Your task to perform on an android device: open sync settings in chrome Image 0: 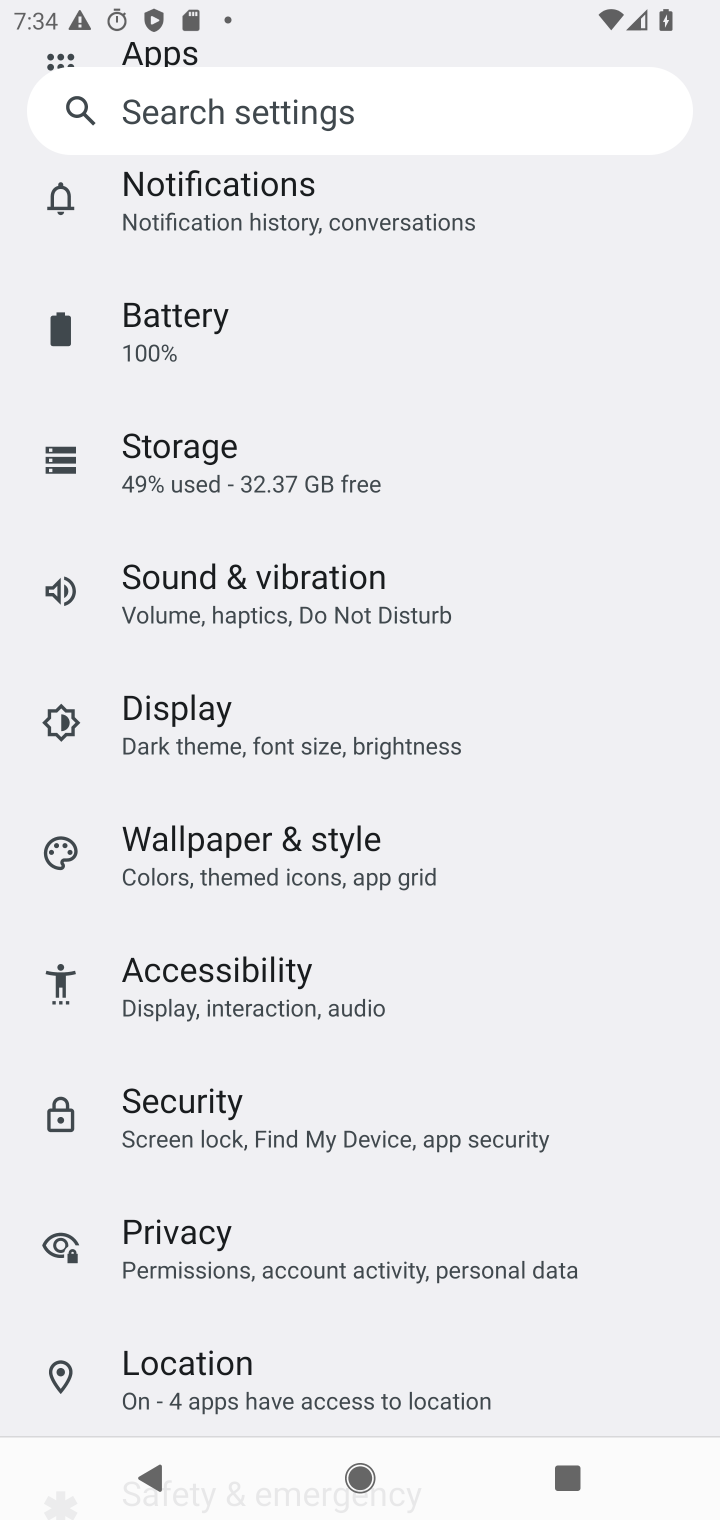
Step 0: drag from (436, 1186) to (548, 307)
Your task to perform on an android device: open sync settings in chrome Image 1: 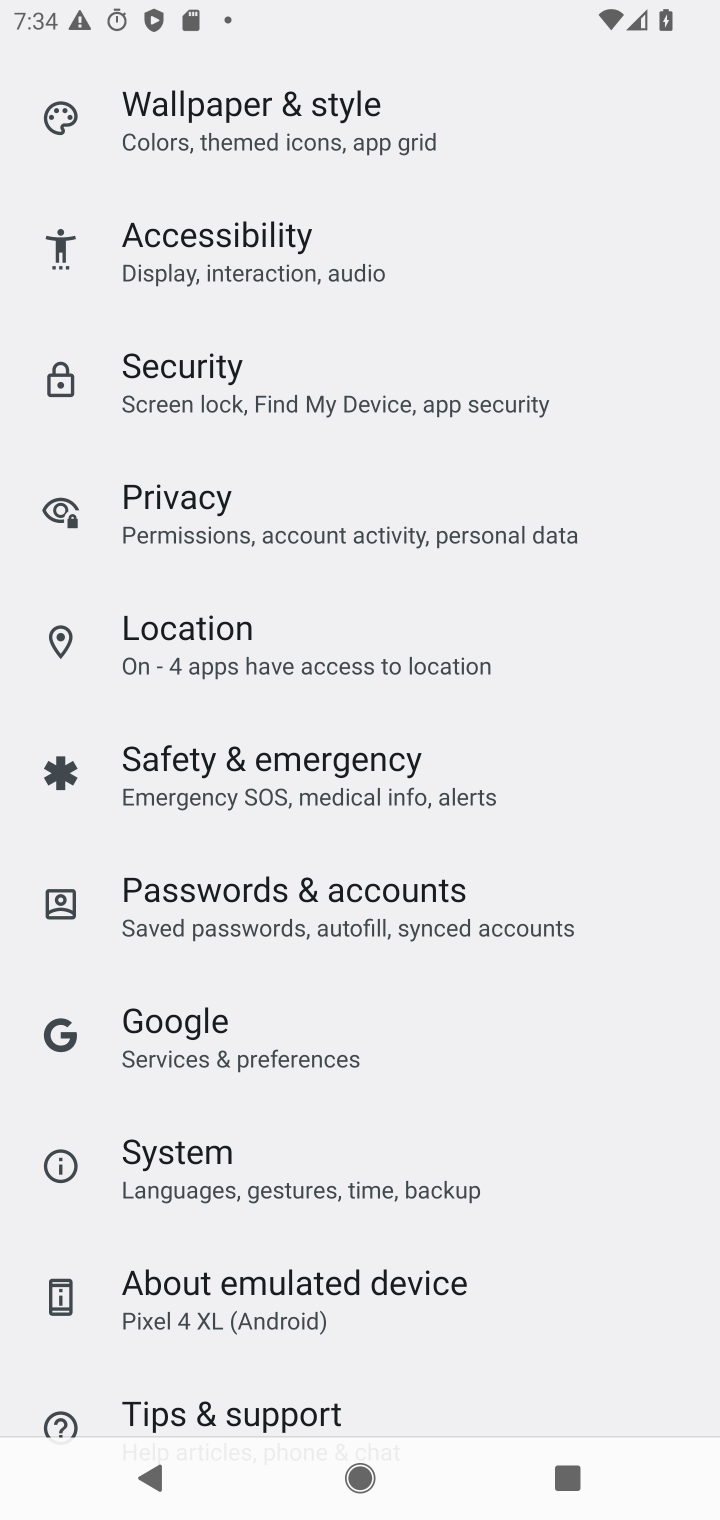
Step 1: drag from (290, 235) to (245, 1245)
Your task to perform on an android device: open sync settings in chrome Image 2: 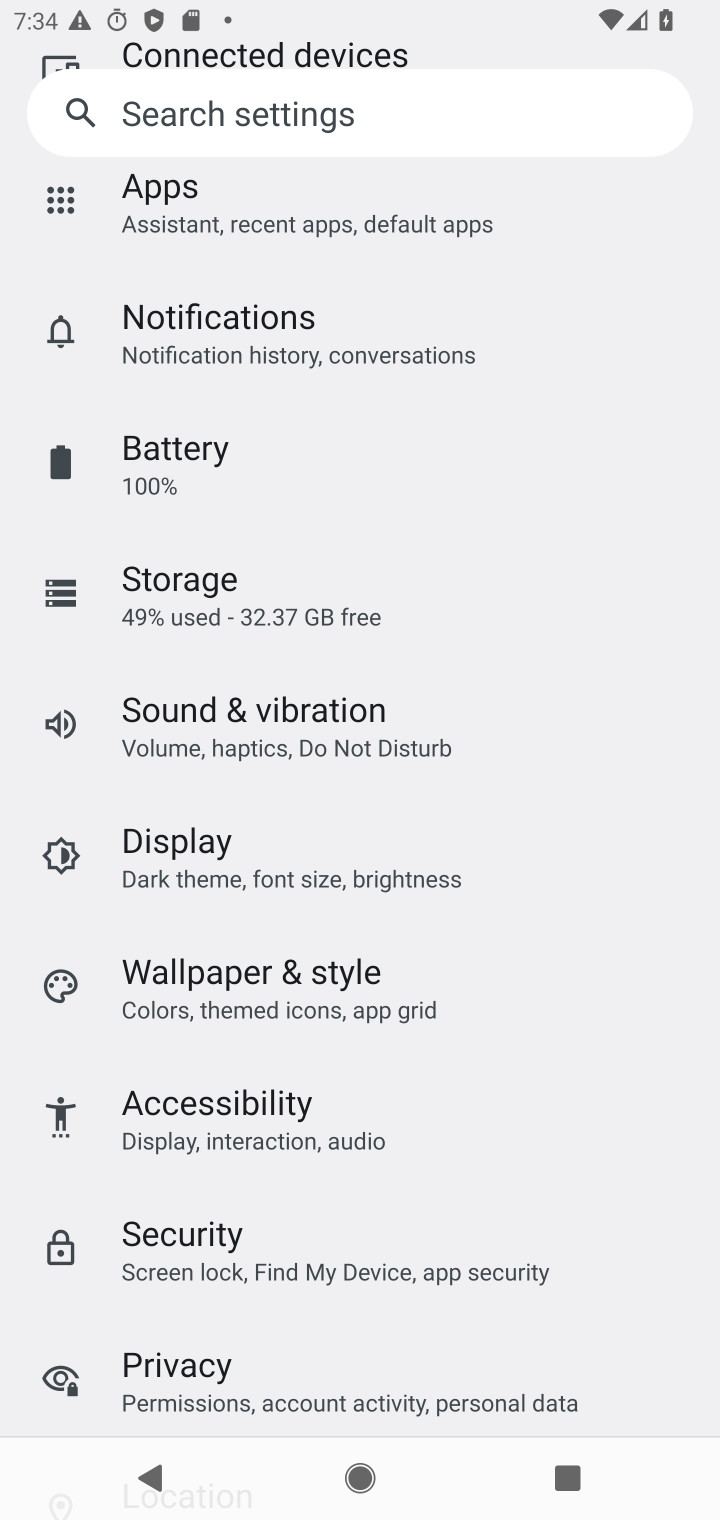
Step 2: press home button
Your task to perform on an android device: open sync settings in chrome Image 3: 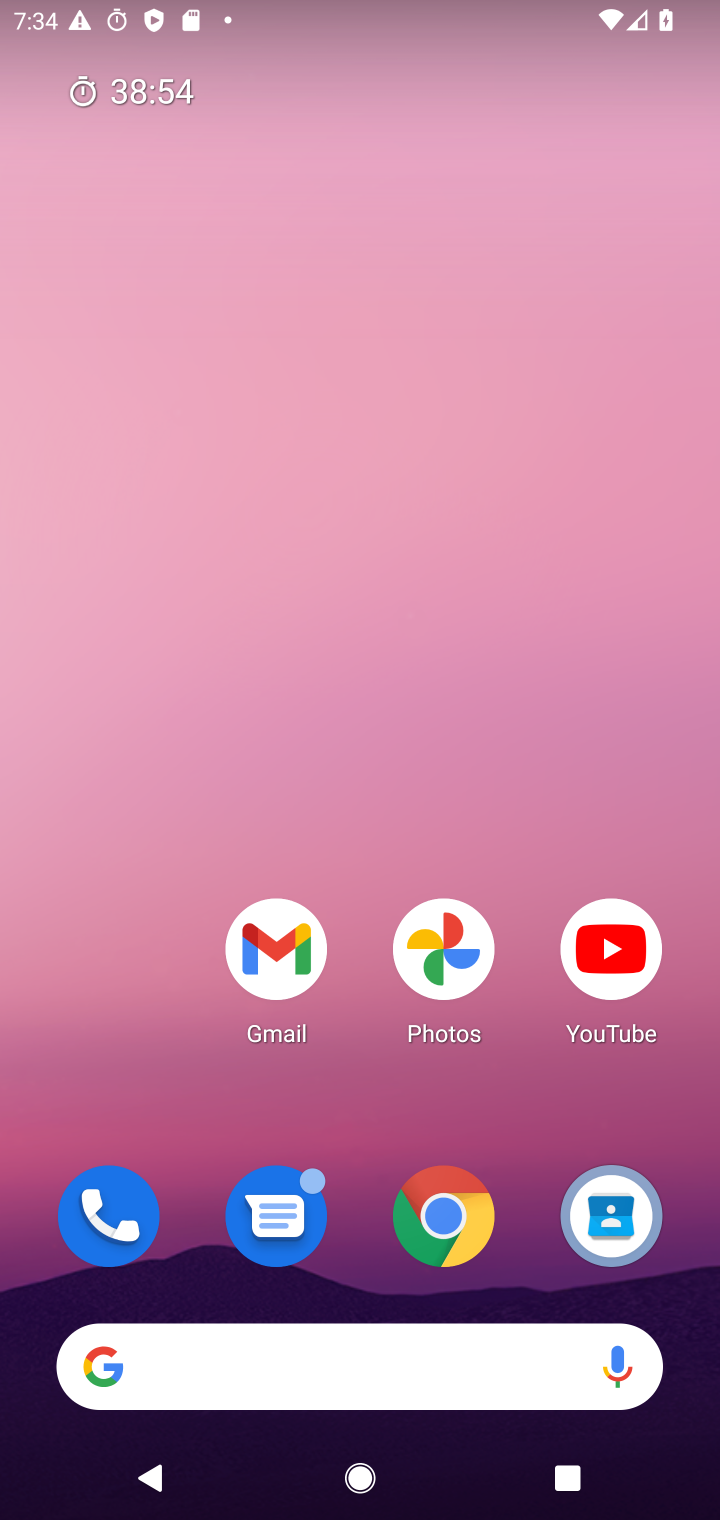
Step 3: drag from (531, 1112) to (701, 0)
Your task to perform on an android device: open sync settings in chrome Image 4: 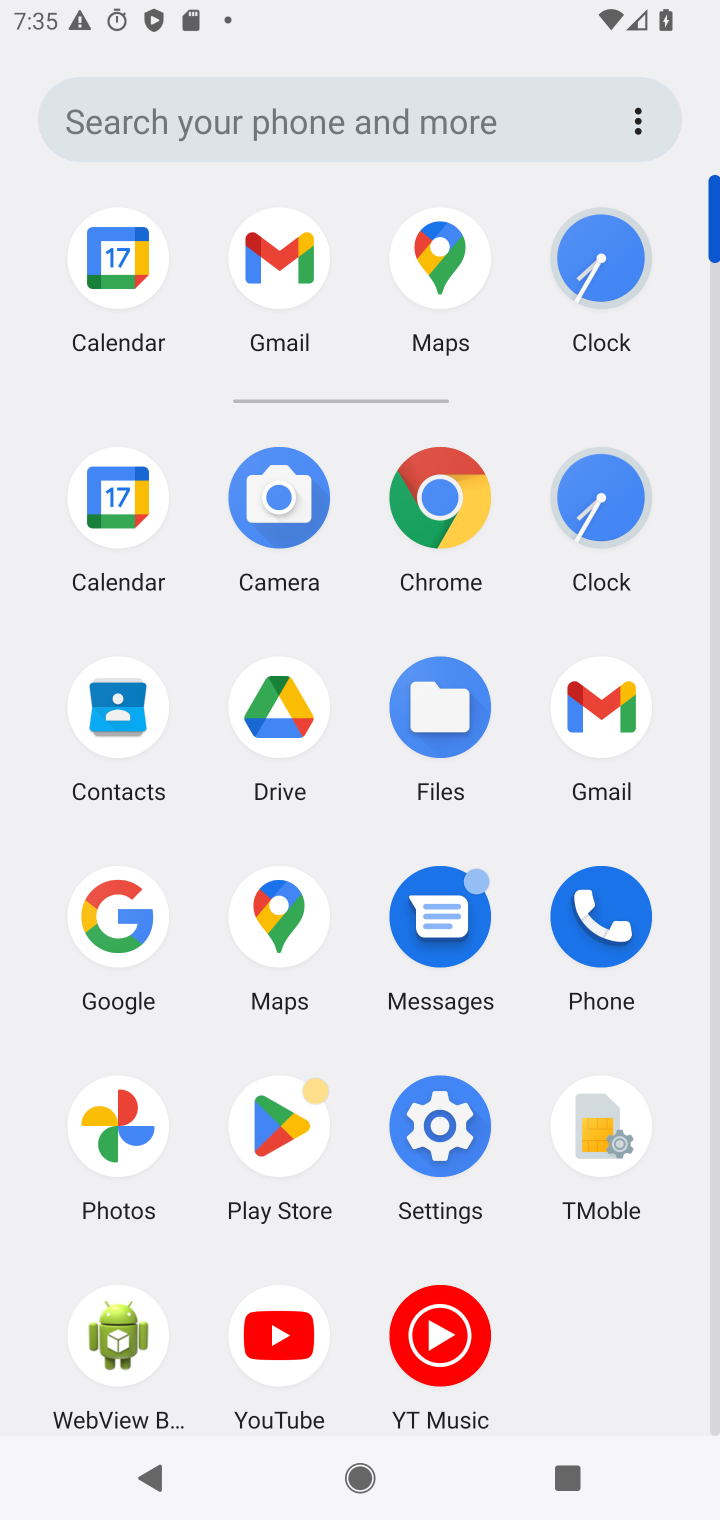
Step 4: click (407, 519)
Your task to perform on an android device: open sync settings in chrome Image 5: 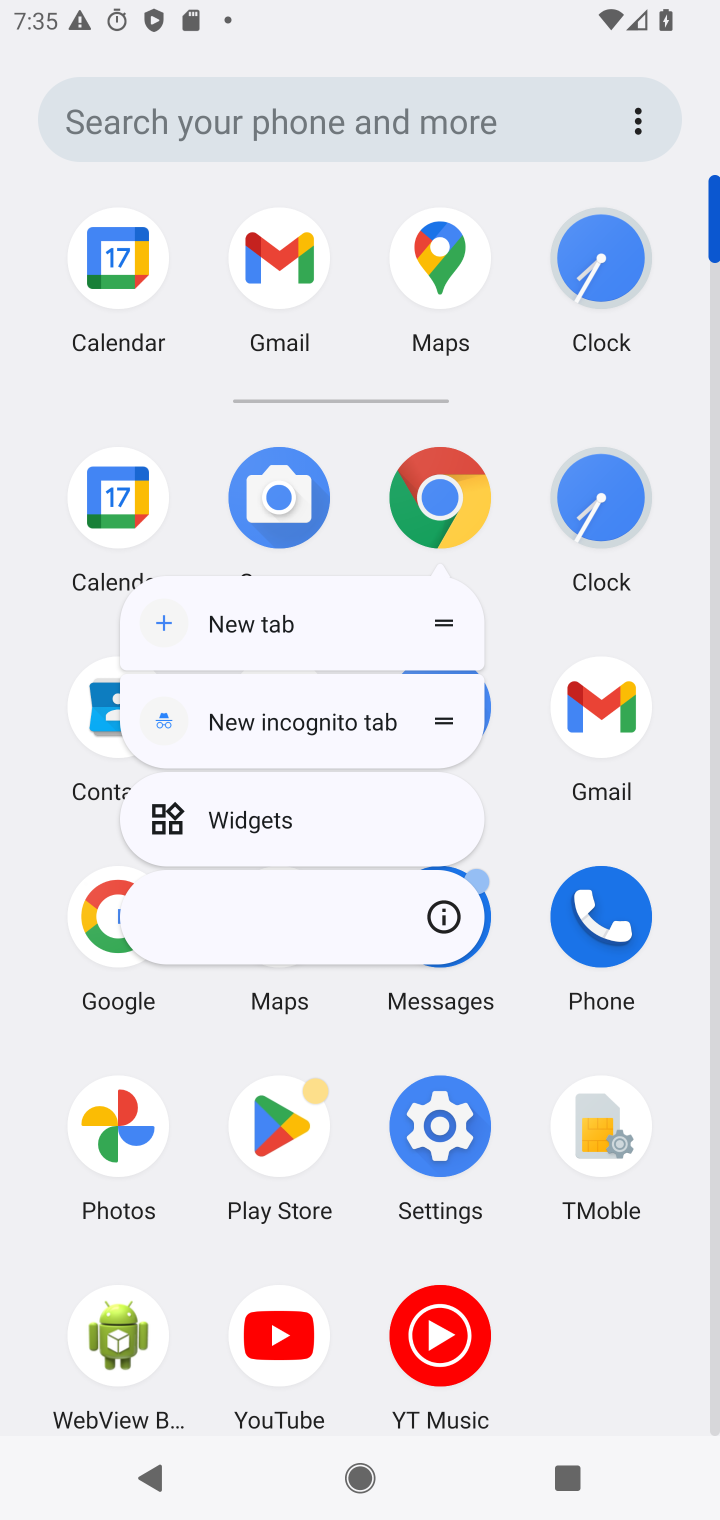
Step 5: click (449, 509)
Your task to perform on an android device: open sync settings in chrome Image 6: 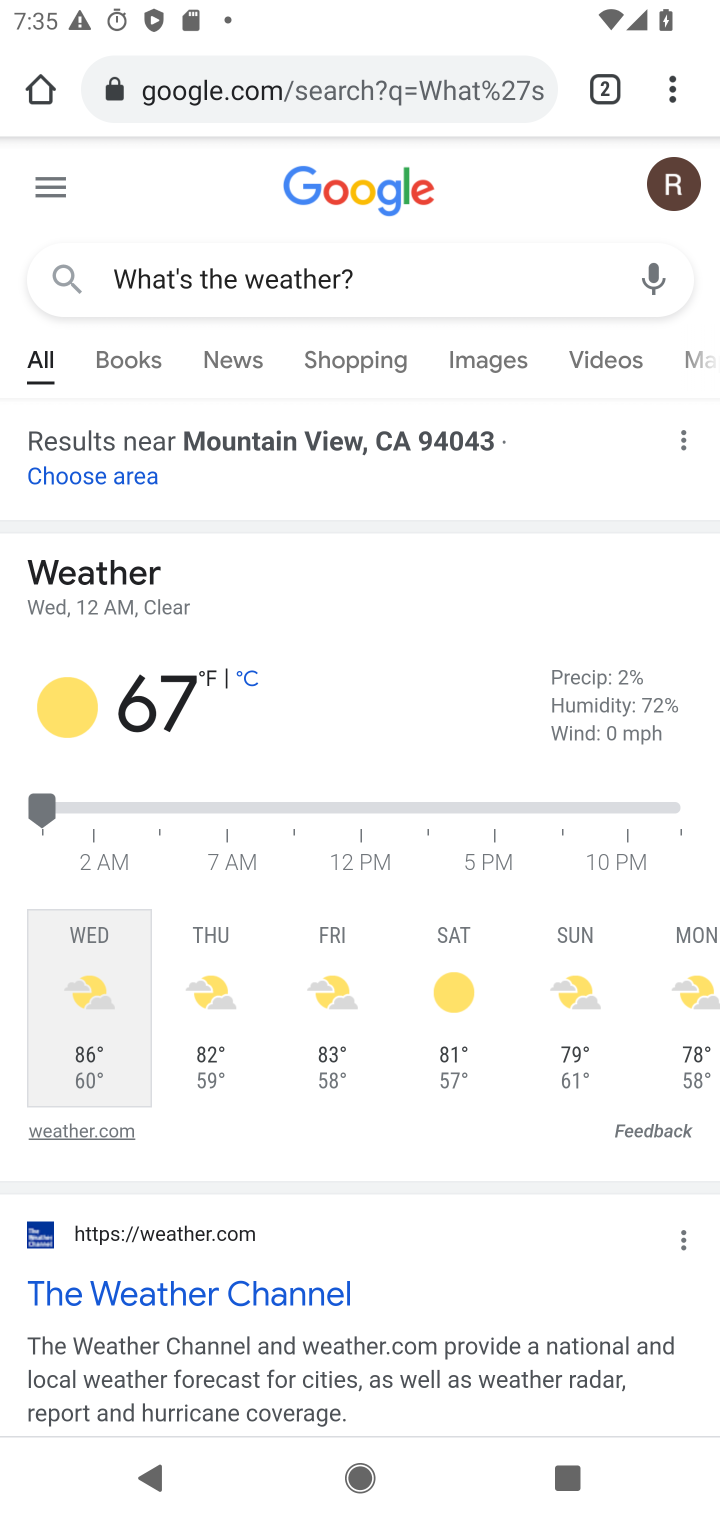
Step 6: drag from (674, 88) to (436, 1222)
Your task to perform on an android device: open sync settings in chrome Image 7: 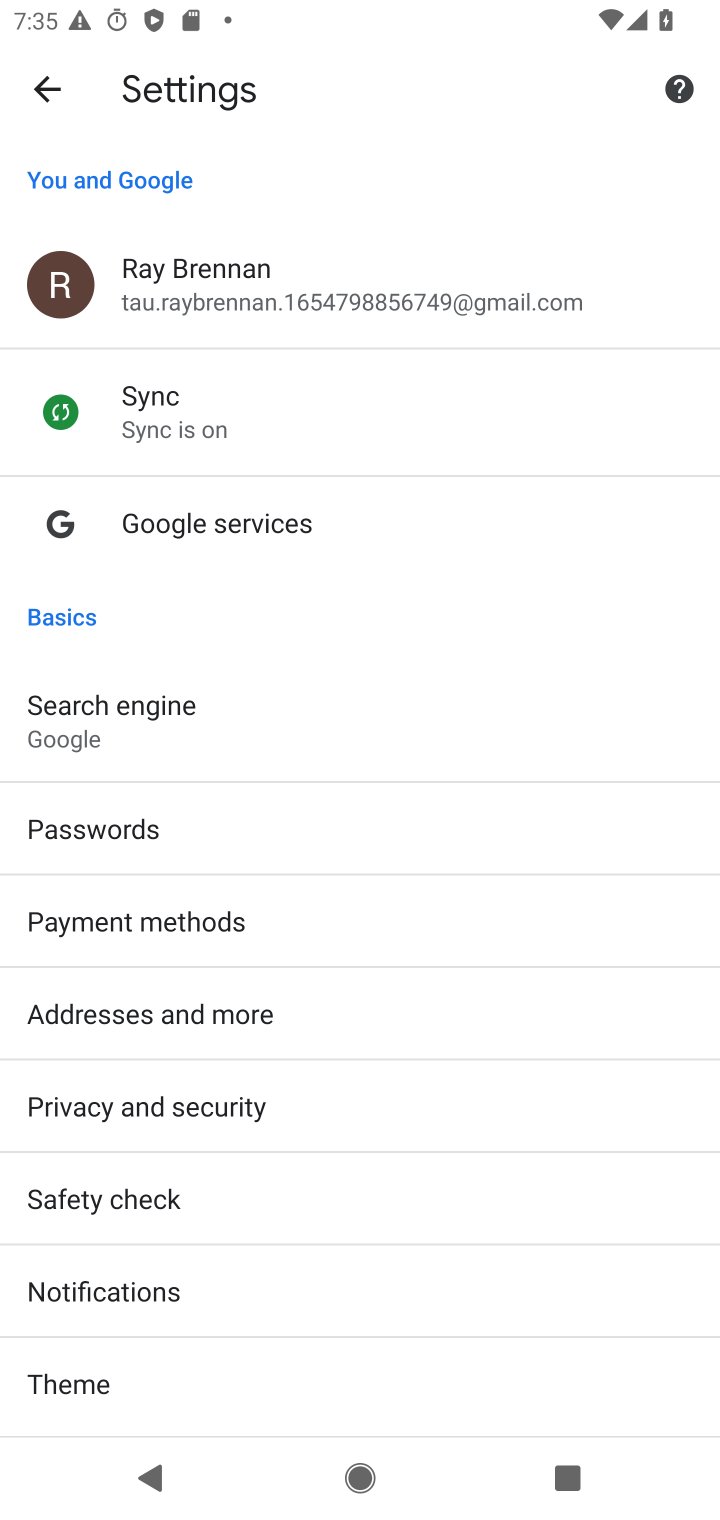
Step 7: click (154, 381)
Your task to perform on an android device: open sync settings in chrome Image 8: 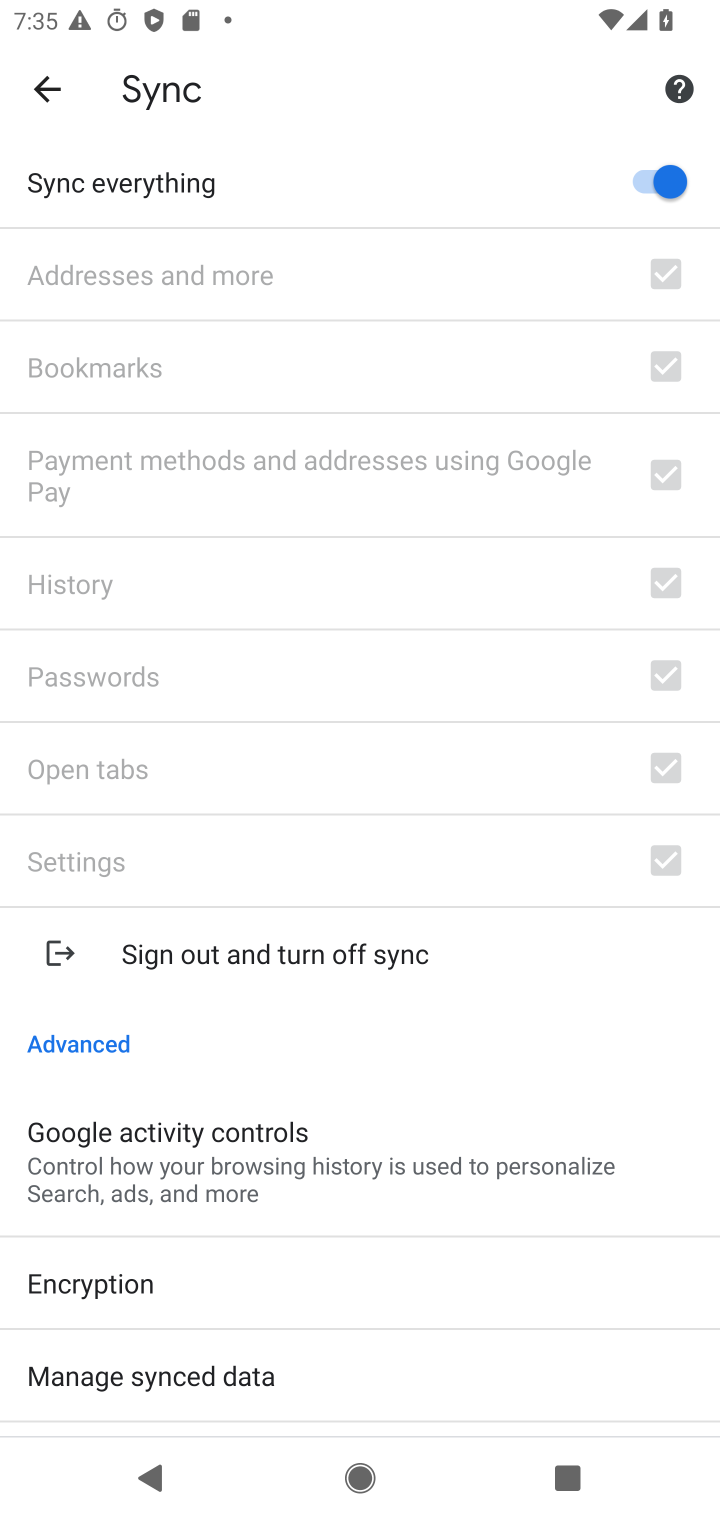
Step 8: task complete